Your task to perform on an android device: allow notifications from all sites in the chrome app Image 0: 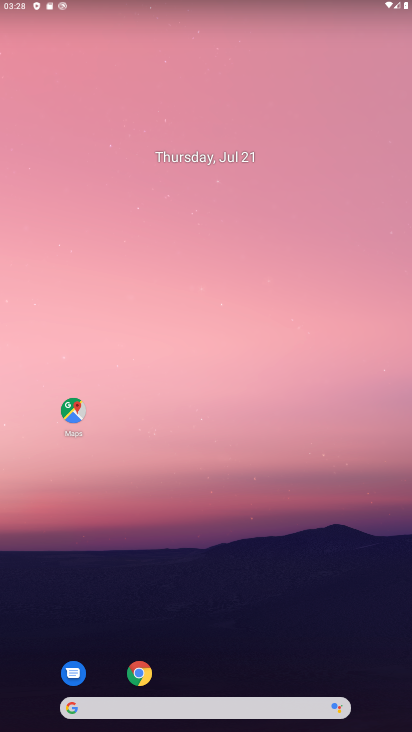
Step 0: drag from (324, 602) to (197, 58)
Your task to perform on an android device: allow notifications from all sites in the chrome app Image 1: 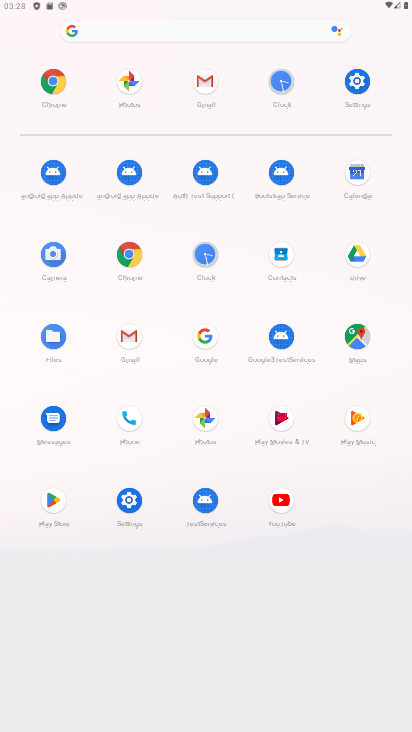
Step 1: click (132, 250)
Your task to perform on an android device: allow notifications from all sites in the chrome app Image 2: 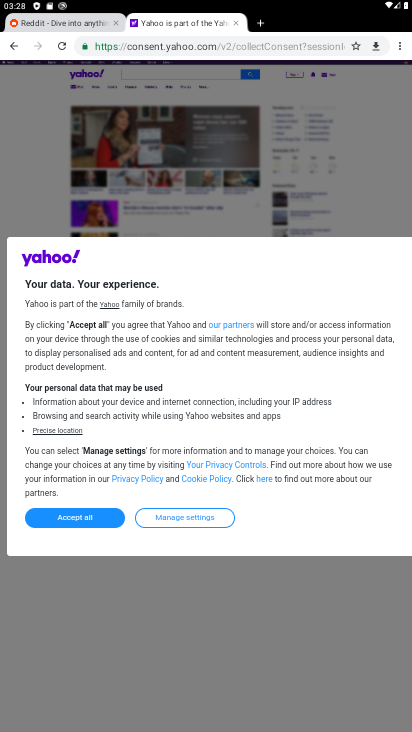
Step 2: drag from (402, 43) to (308, 302)
Your task to perform on an android device: allow notifications from all sites in the chrome app Image 3: 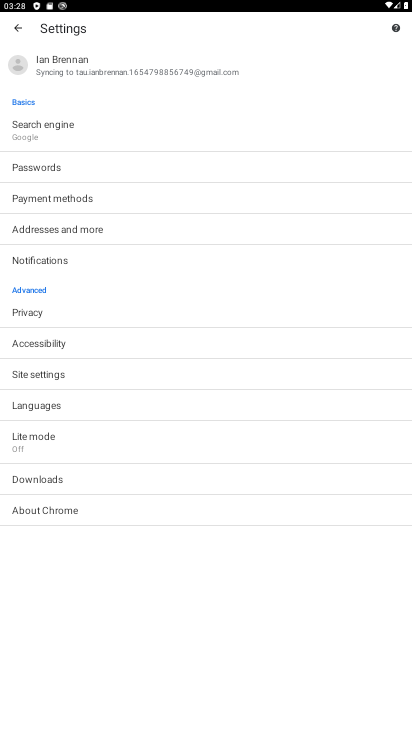
Step 3: click (54, 372)
Your task to perform on an android device: allow notifications from all sites in the chrome app Image 4: 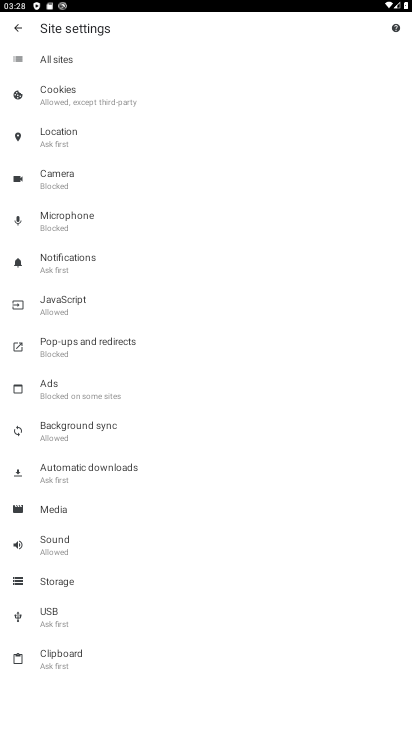
Step 4: click (66, 268)
Your task to perform on an android device: allow notifications from all sites in the chrome app Image 5: 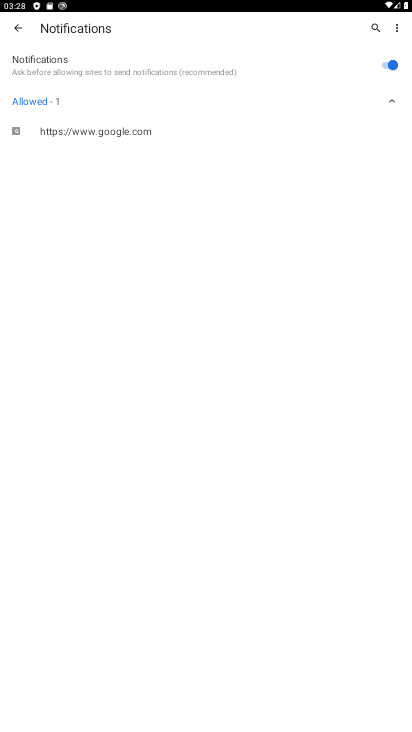
Step 5: task complete